Your task to perform on an android device: toggle notification dots Image 0: 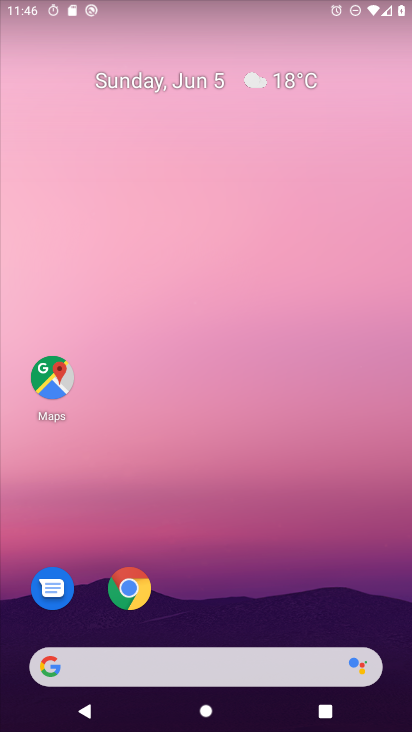
Step 0: drag from (336, 601) to (380, 220)
Your task to perform on an android device: toggle notification dots Image 1: 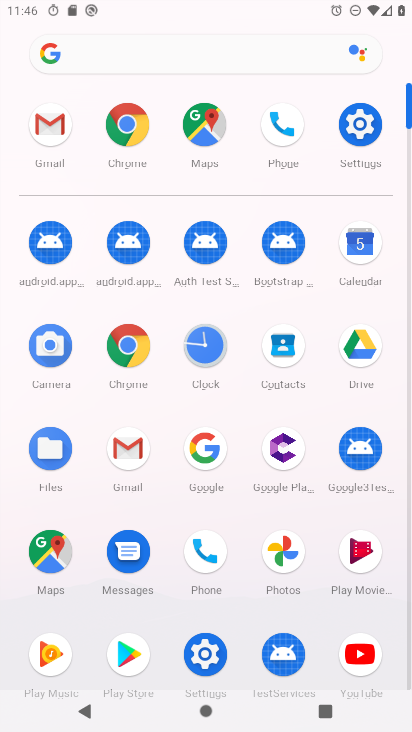
Step 1: click (362, 147)
Your task to perform on an android device: toggle notification dots Image 2: 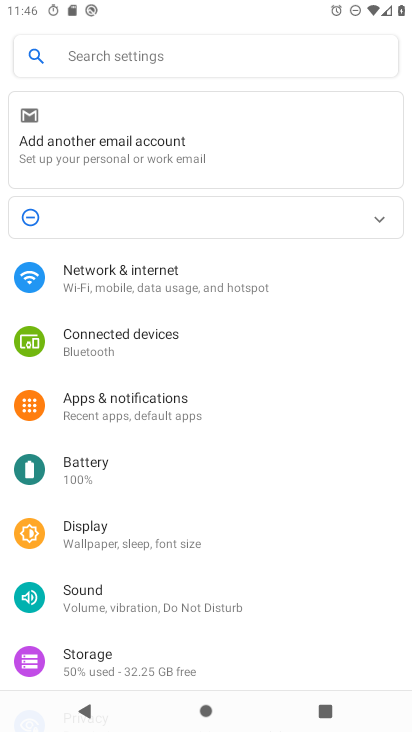
Step 2: drag from (338, 533) to (338, 403)
Your task to perform on an android device: toggle notification dots Image 3: 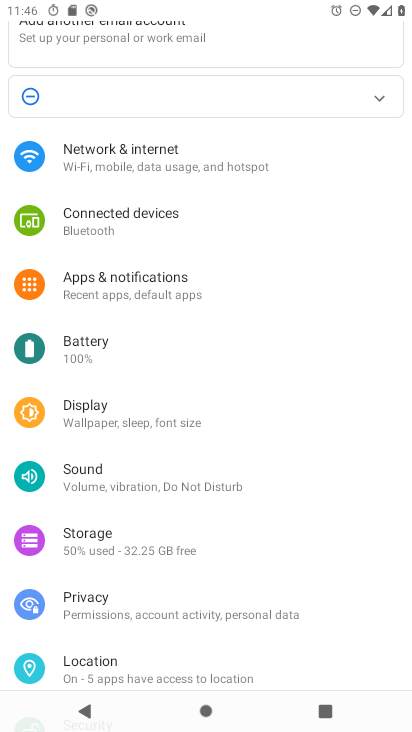
Step 3: drag from (334, 569) to (342, 455)
Your task to perform on an android device: toggle notification dots Image 4: 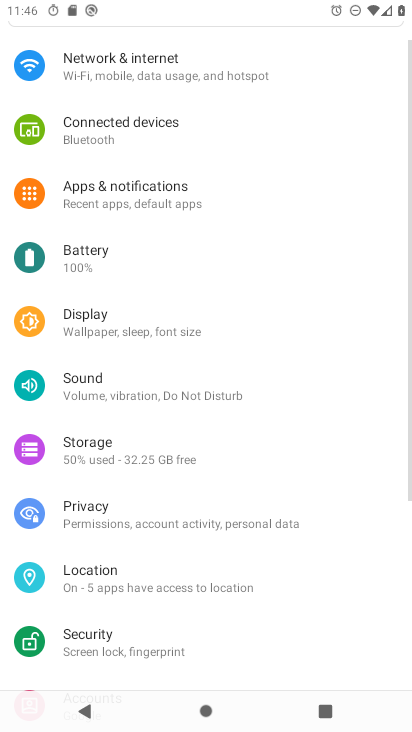
Step 4: drag from (339, 542) to (339, 406)
Your task to perform on an android device: toggle notification dots Image 5: 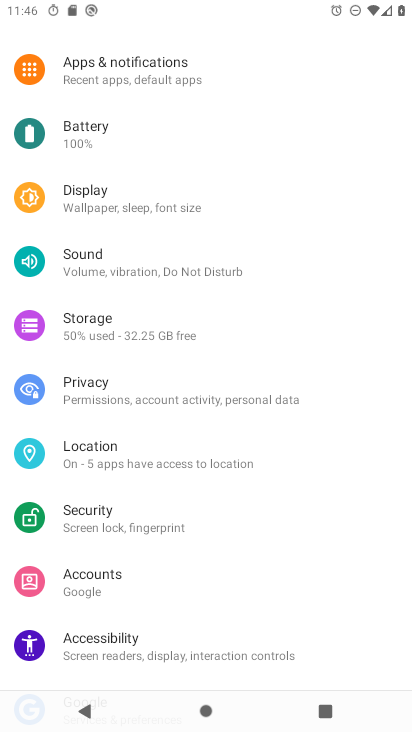
Step 5: drag from (334, 513) to (340, 408)
Your task to perform on an android device: toggle notification dots Image 6: 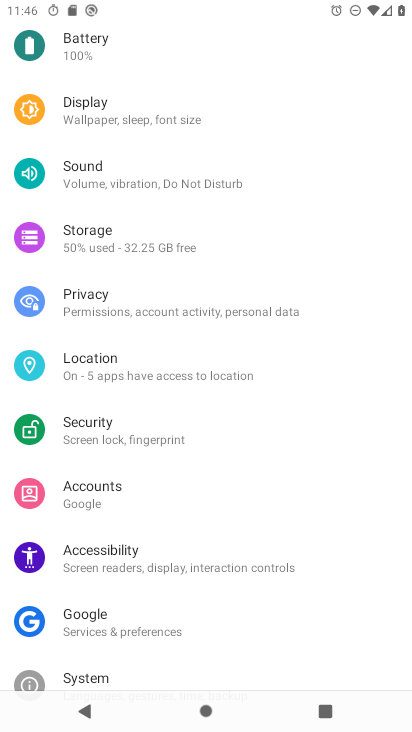
Step 6: drag from (337, 265) to (350, 355)
Your task to perform on an android device: toggle notification dots Image 7: 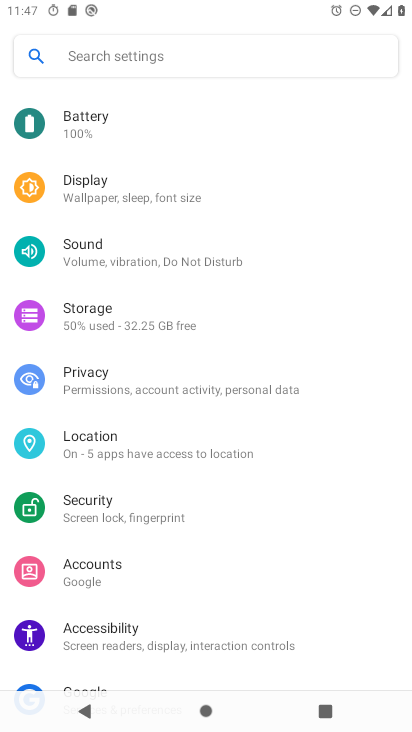
Step 7: drag from (300, 219) to (317, 341)
Your task to perform on an android device: toggle notification dots Image 8: 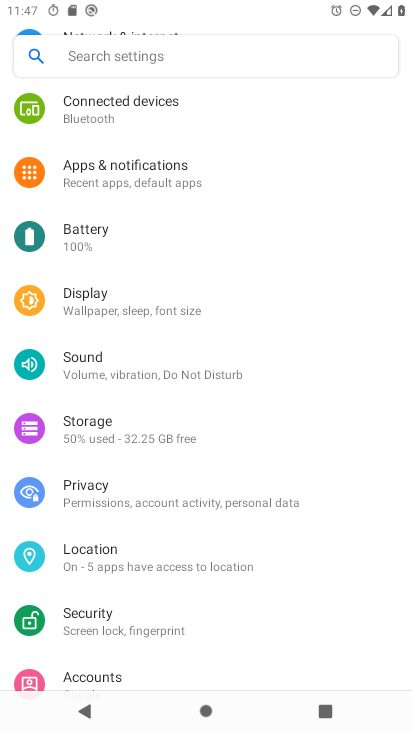
Step 8: click (172, 189)
Your task to perform on an android device: toggle notification dots Image 9: 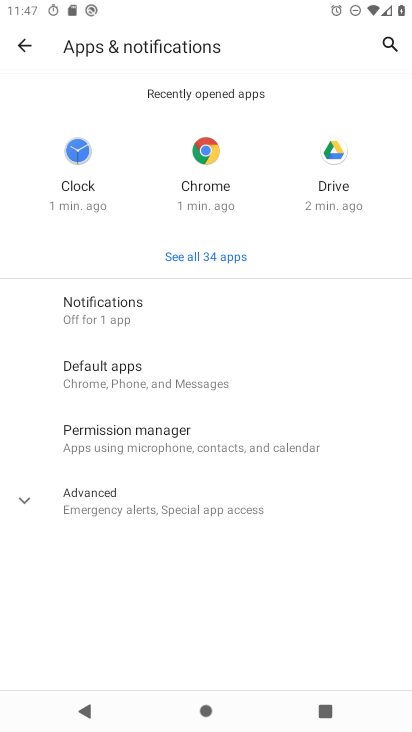
Step 9: click (170, 321)
Your task to perform on an android device: toggle notification dots Image 10: 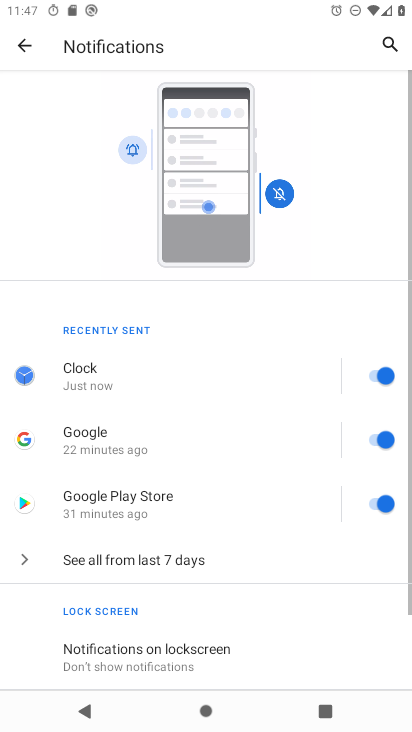
Step 10: drag from (296, 447) to (302, 380)
Your task to perform on an android device: toggle notification dots Image 11: 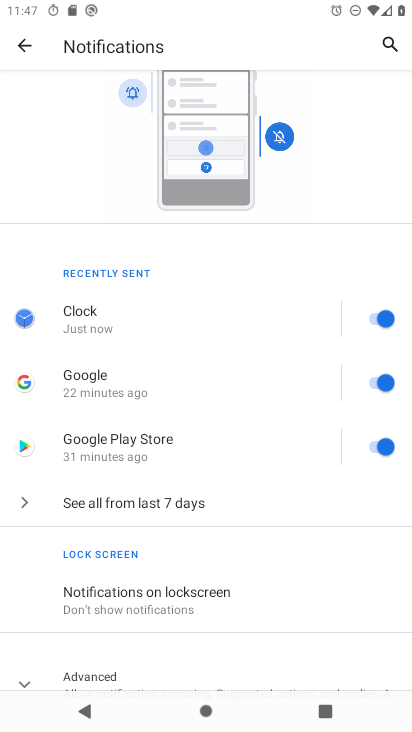
Step 11: drag from (295, 470) to (298, 394)
Your task to perform on an android device: toggle notification dots Image 12: 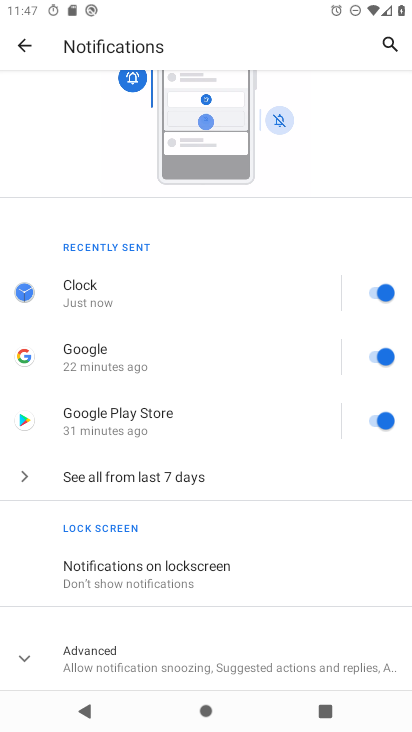
Step 12: click (275, 661)
Your task to perform on an android device: toggle notification dots Image 13: 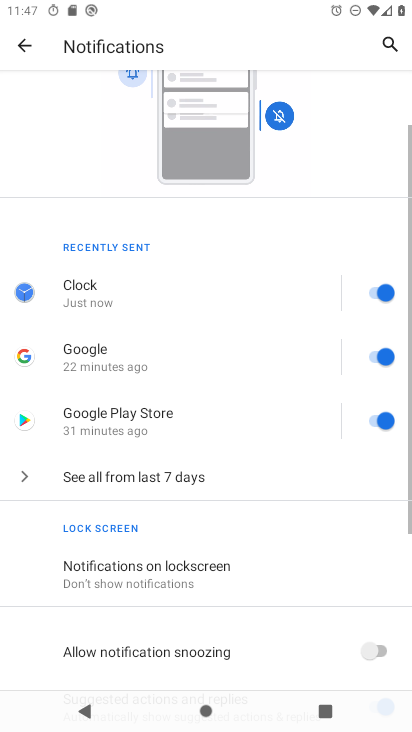
Step 13: drag from (284, 581) to (291, 487)
Your task to perform on an android device: toggle notification dots Image 14: 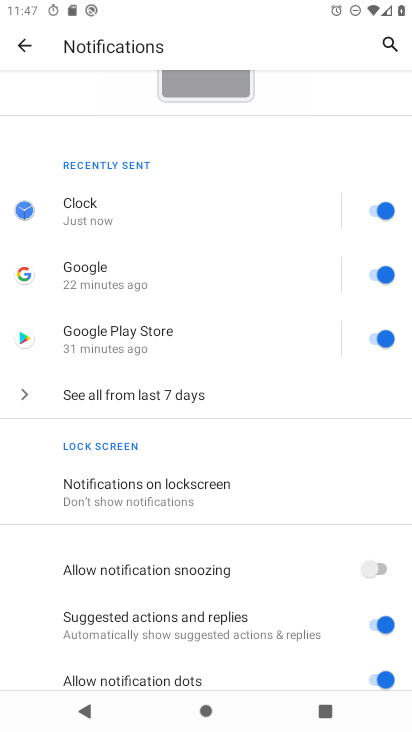
Step 14: drag from (293, 557) to (300, 470)
Your task to perform on an android device: toggle notification dots Image 15: 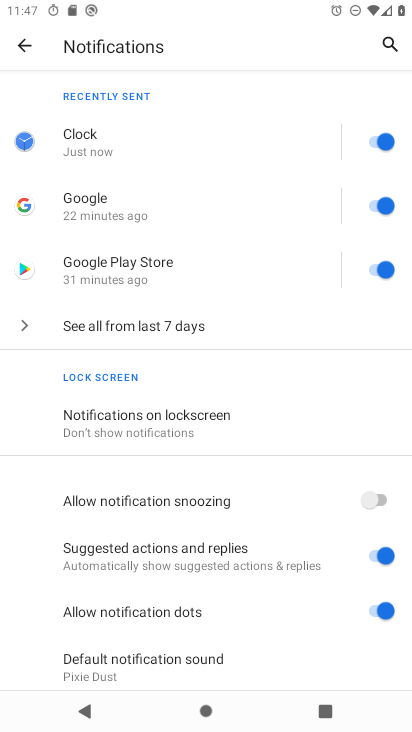
Step 15: drag from (299, 610) to (304, 499)
Your task to perform on an android device: toggle notification dots Image 16: 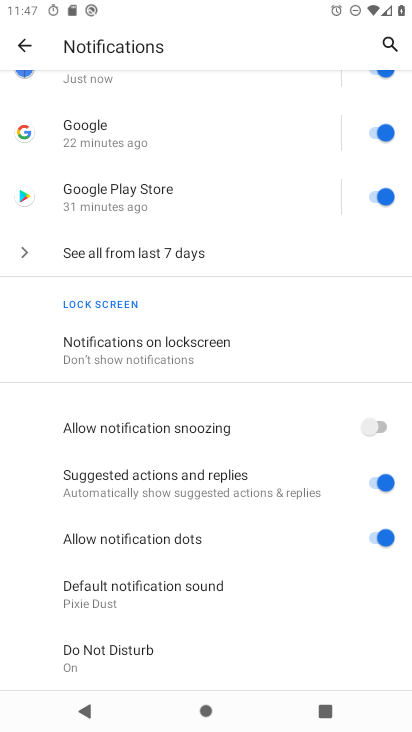
Step 16: click (375, 549)
Your task to perform on an android device: toggle notification dots Image 17: 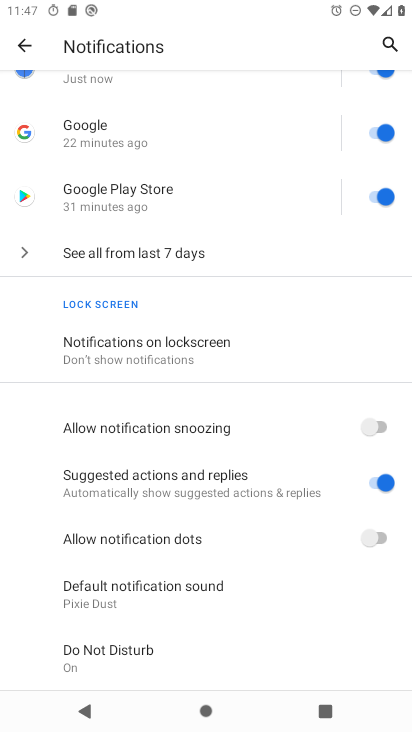
Step 17: task complete